Your task to perform on an android device: delete the emails in spam in the gmail app Image 0: 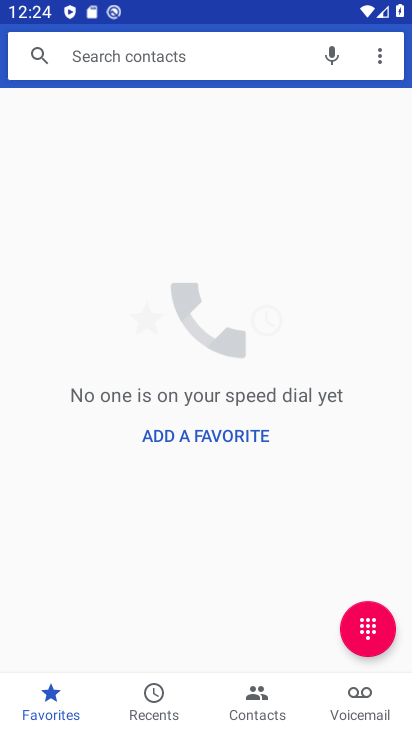
Step 0: press back button
Your task to perform on an android device: delete the emails in spam in the gmail app Image 1: 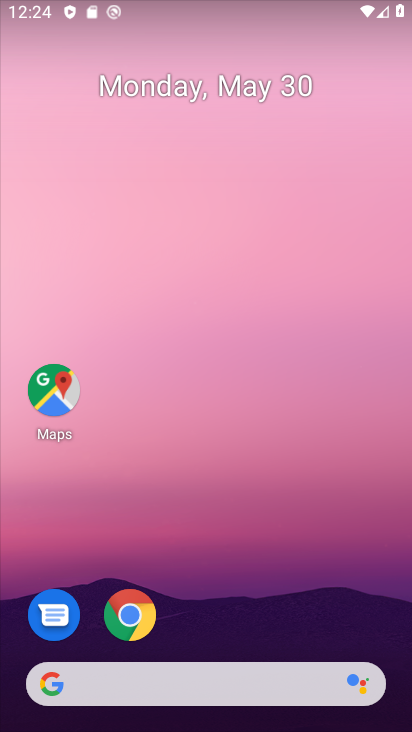
Step 1: drag from (234, 579) to (302, 140)
Your task to perform on an android device: delete the emails in spam in the gmail app Image 2: 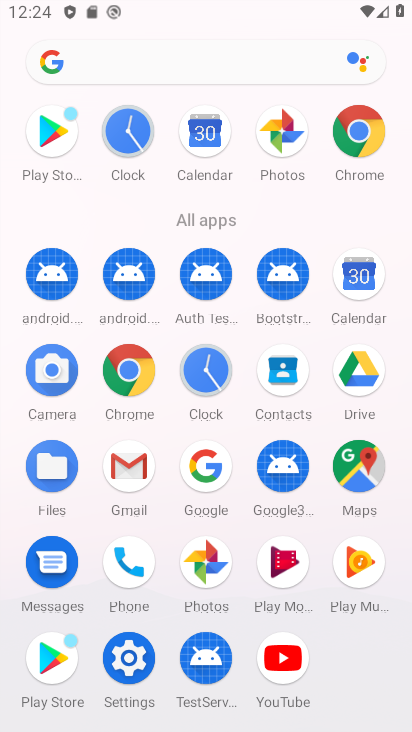
Step 2: click (122, 463)
Your task to perform on an android device: delete the emails in spam in the gmail app Image 3: 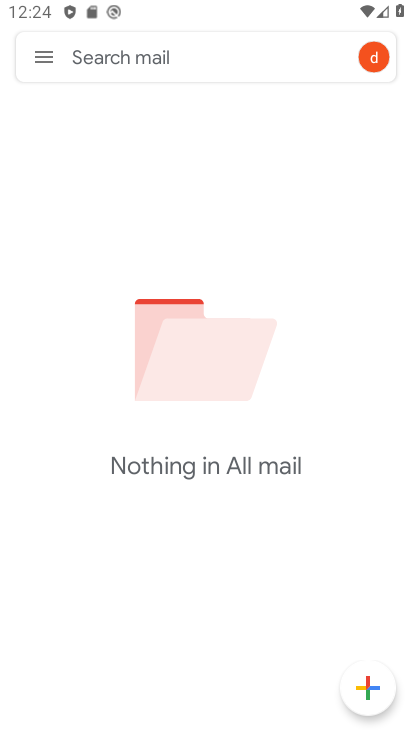
Step 3: click (37, 50)
Your task to perform on an android device: delete the emails in spam in the gmail app Image 4: 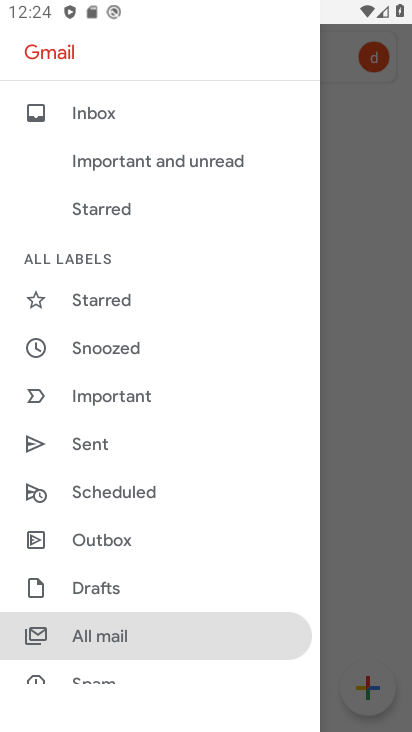
Step 4: drag from (94, 572) to (182, 49)
Your task to perform on an android device: delete the emails in spam in the gmail app Image 5: 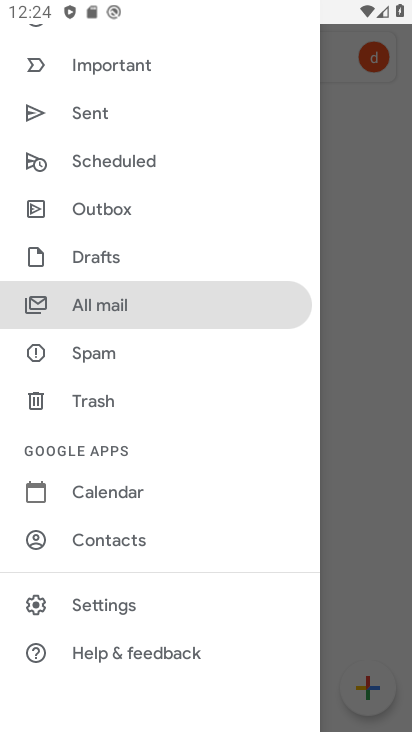
Step 5: click (99, 352)
Your task to perform on an android device: delete the emails in spam in the gmail app Image 6: 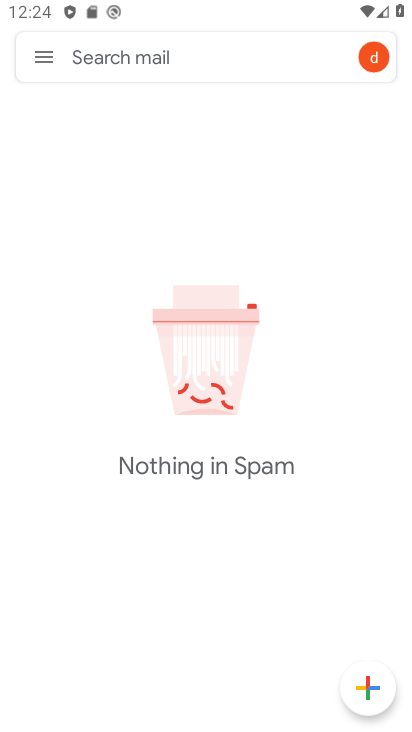
Step 6: task complete